Your task to perform on an android device: What's the news in Vietnam? Image 0: 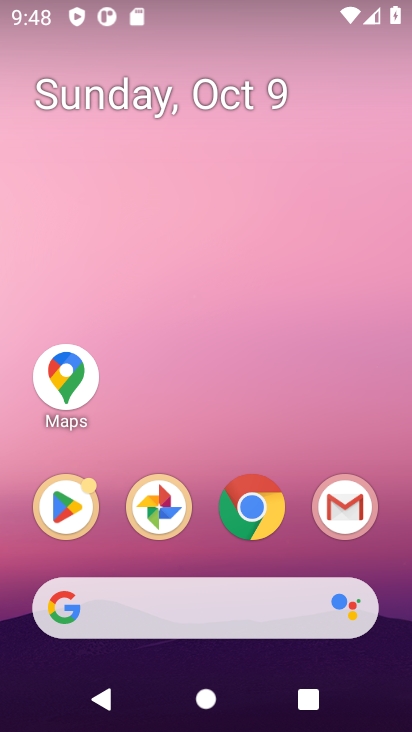
Step 0: drag from (201, 434) to (188, 66)
Your task to perform on an android device: What's the news in Vietnam? Image 1: 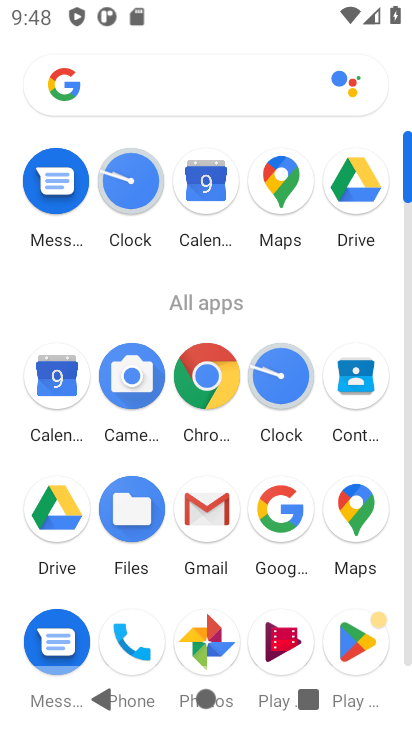
Step 1: click (200, 375)
Your task to perform on an android device: What's the news in Vietnam? Image 2: 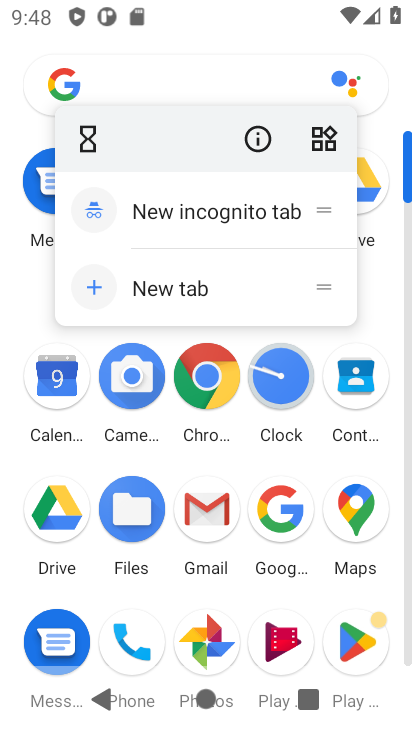
Step 2: click (210, 366)
Your task to perform on an android device: What's the news in Vietnam? Image 3: 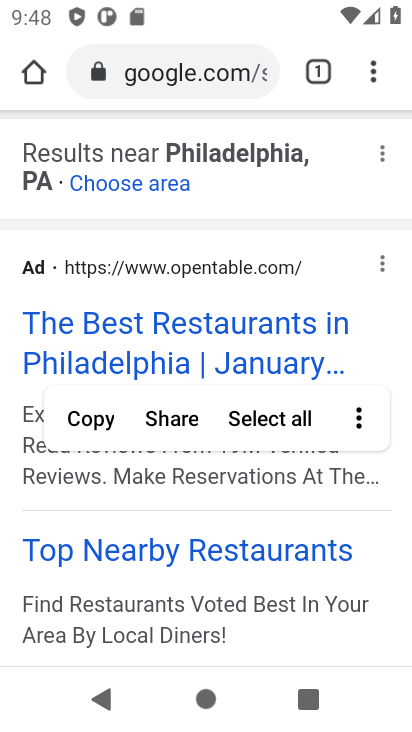
Step 3: click (167, 79)
Your task to perform on an android device: What's the news in Vietnam? Image 4: 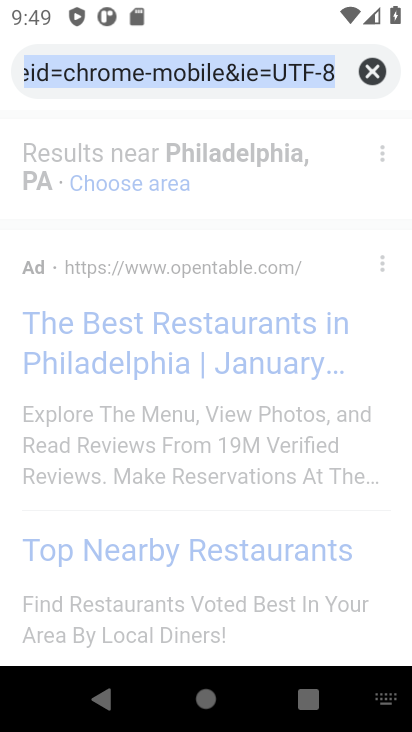
Step 4: type "What's the news in Vietnam?"
Your task to perform on an android device: What's the news in Vietnam? Image 5: 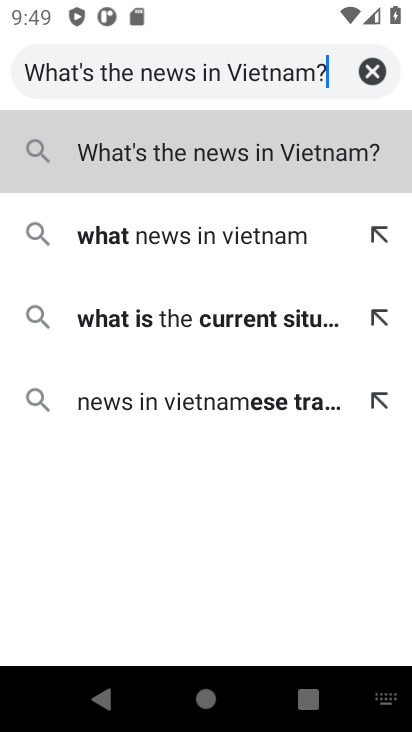
Step 5: press enter
Your task to perform on an android device: What's the news in Vietnam? Image 6: 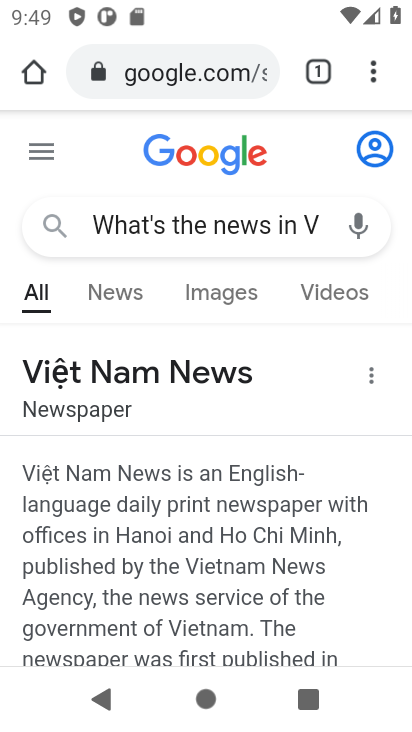
Step 6: drag from (219, 578) to (115, 94)
Your task to perform on an android device: What's the news in Vietnam? Image 7: 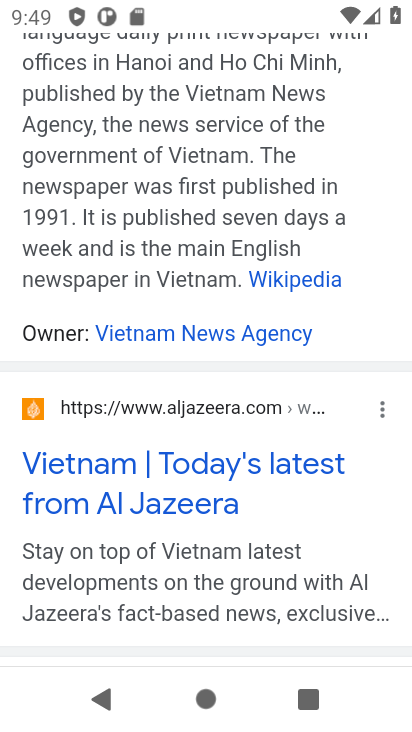
Step 7: click (121, 479)
Your task to perform on an android device: What's the news in Vietnam? Image 8: 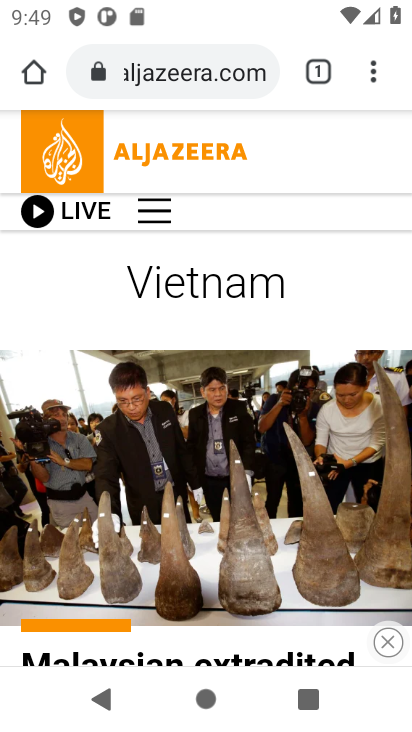
Step 8: task complete